Your task to perform on an android device: turn notification dots off Image 0: 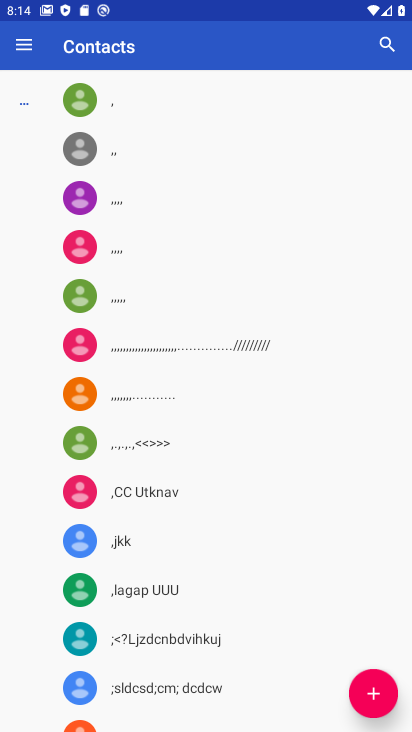
Step 0: press back button
Your task to perform on an android device: turn notification dots off Image 1: 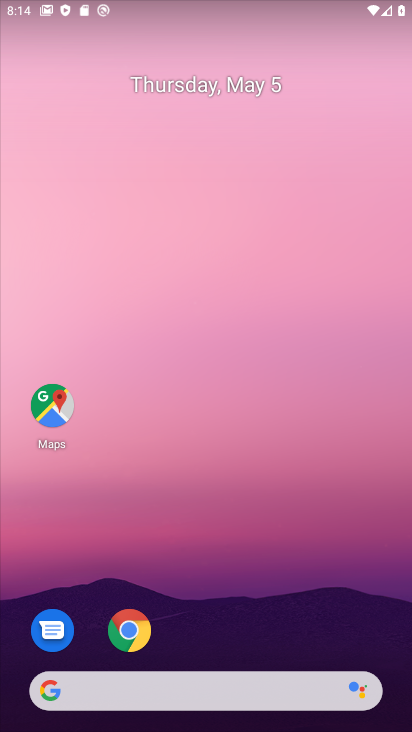
Step 1: drag from (278, 580) to (324, 249)
Your task to perform on an android device: turn notification dots off Image 2: 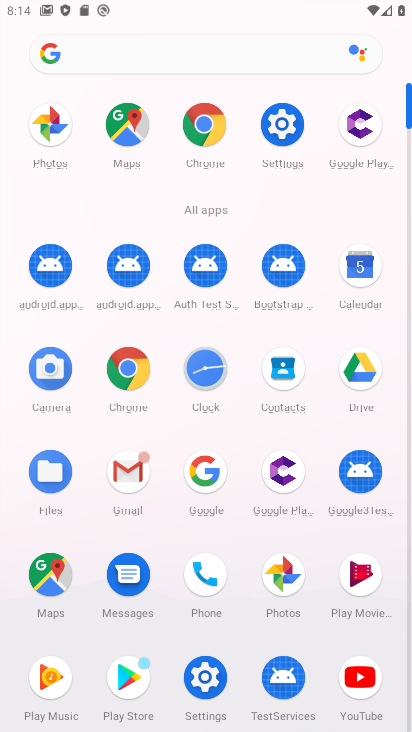
Step 2: click (276, 120)
Your task to perform on an android device: turn notification dots off Image 3: 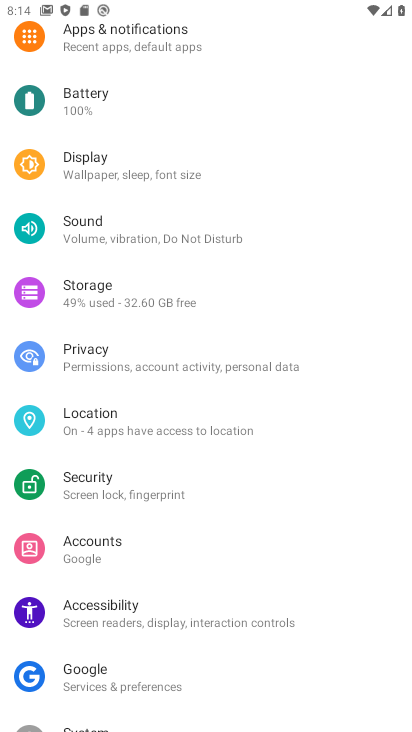
Step 3: click (157, 36)
Your task to perform on an android device: turn notification dots off Image 4: 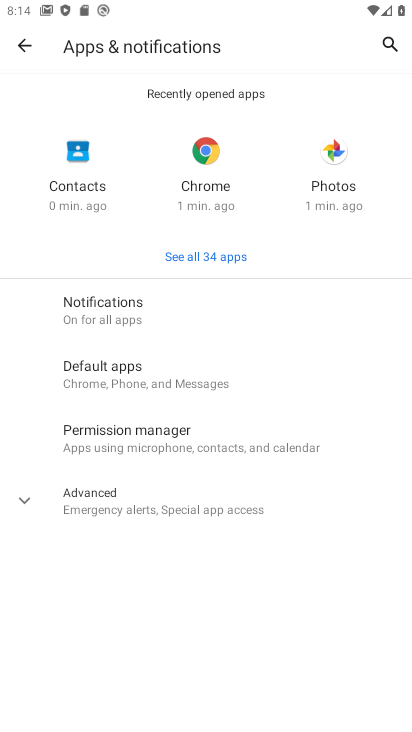
Step 4: click (141, 311)
Your task to perform on an android device: turn notification dots off Image 5: 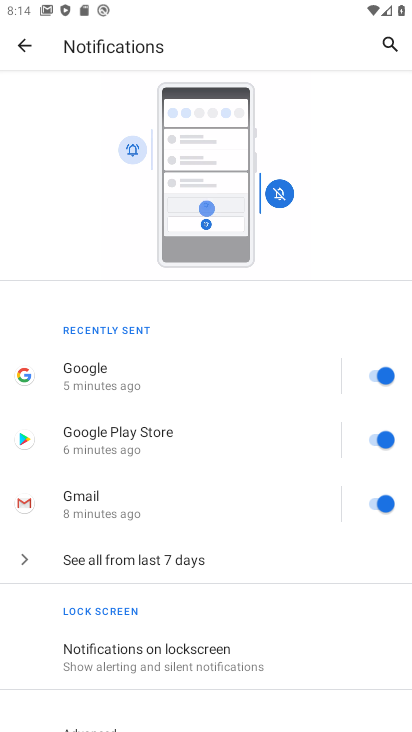
Step 5: drag from (140, 611) to (210, 194)
Your task to perform on an android device: turn notification dots off Image 6: 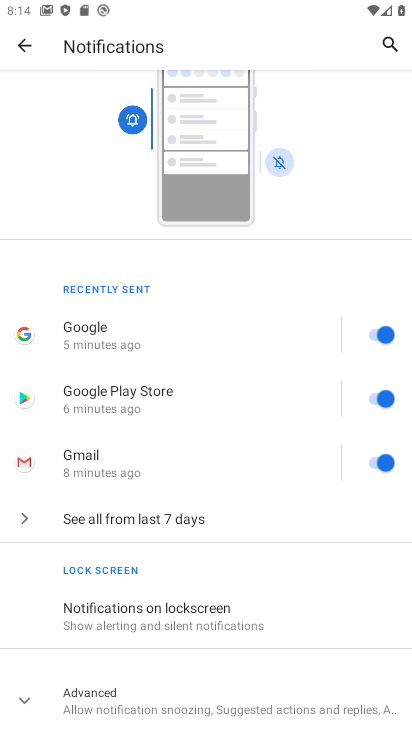
Step 6: click (149, 705)
Your task to perform on an android device: turn notification dots off Image 7: 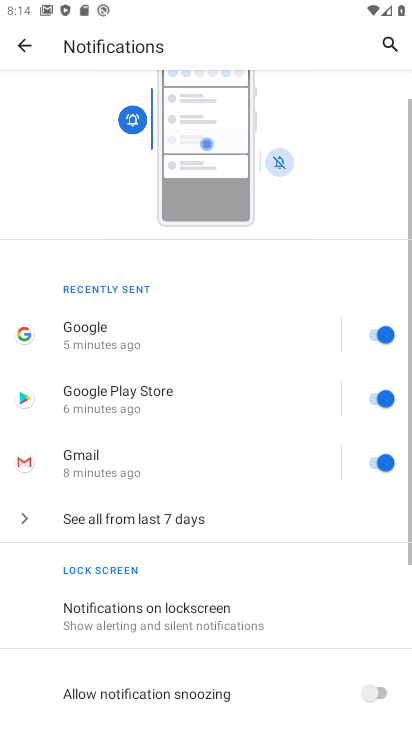
Step 7: drag from (155, 679) to (235, 292)
Your task to perform on an android device: turn notification dots off Image 8: 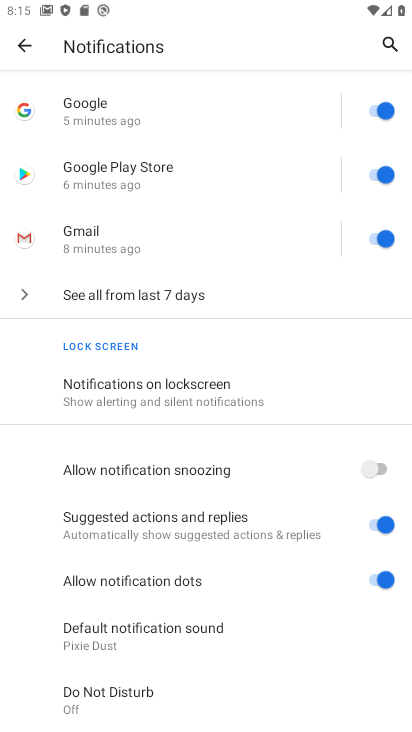
Step 8: click (388, 579)
Your task to perform on an android device: turn notification dots off Image 9: 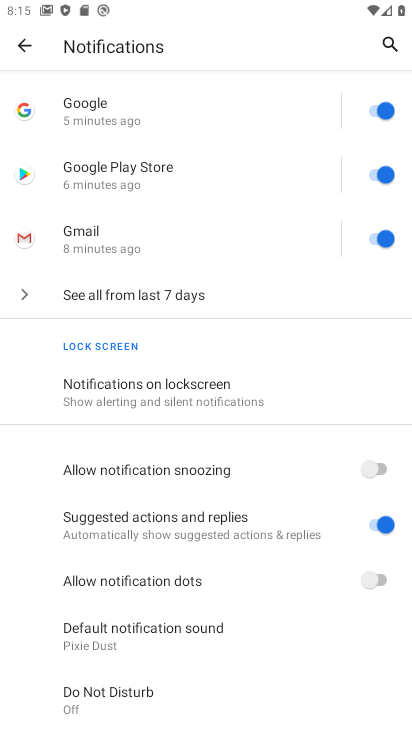
Step 9: task complete